Your task to perform on an android device: all mails in gmail Image 0: 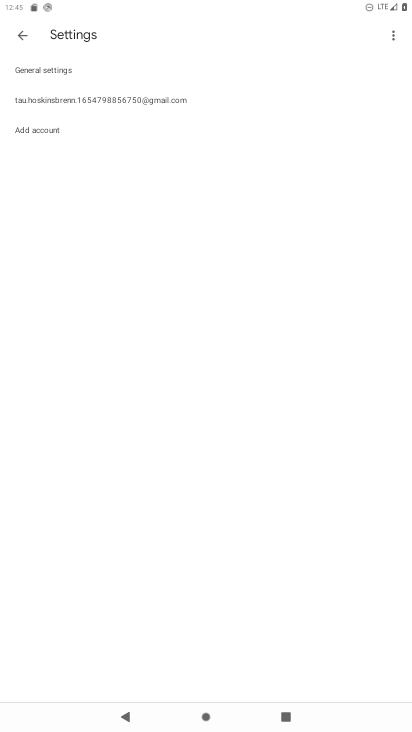
Step 0: click (25, 29)
Your task to perform on an android device: all mails in gmail Image 1: 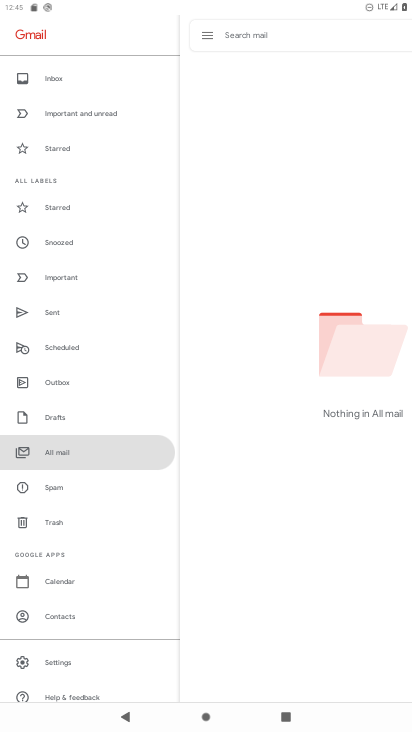
Step 1: task complete